Your task to perform on an android device: When is my next meeting? Image 0: 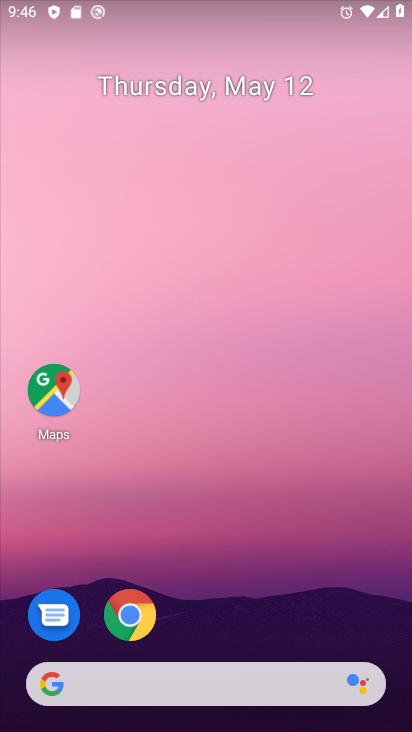
Step 0: drag from (274, 614) to (286, 164)
Your task to perform on an android device: When is my next meeting? Image 1: 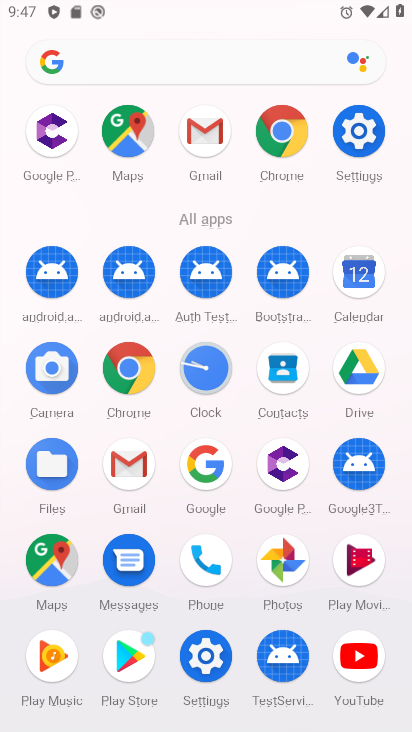
Step 1: click (364, 258)
Your task to perform on an android device: When is my next meeting? Image 2: 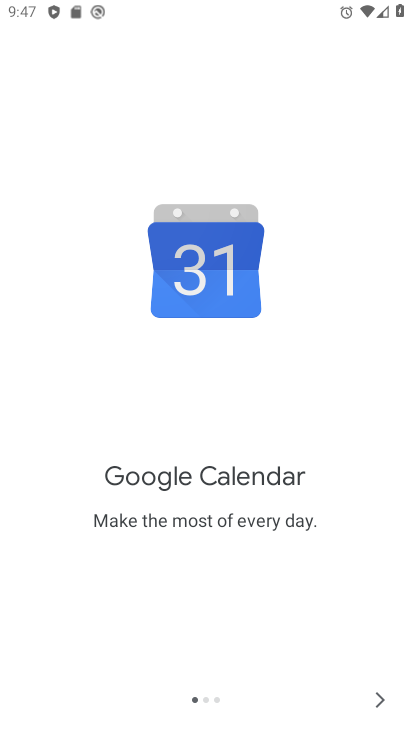
Step 2: click (379, 694)
Your task to perform on an android device: When is my next meeting? Image 3: 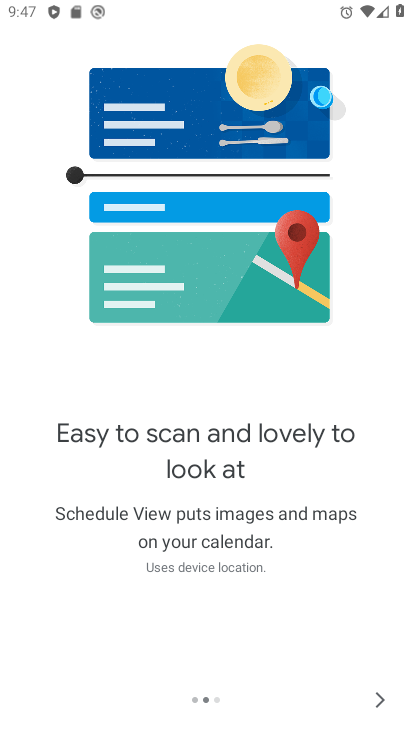
Step 3: click (379, 694)
Your task to perform on an android device: When is my next meeting? Image 4: 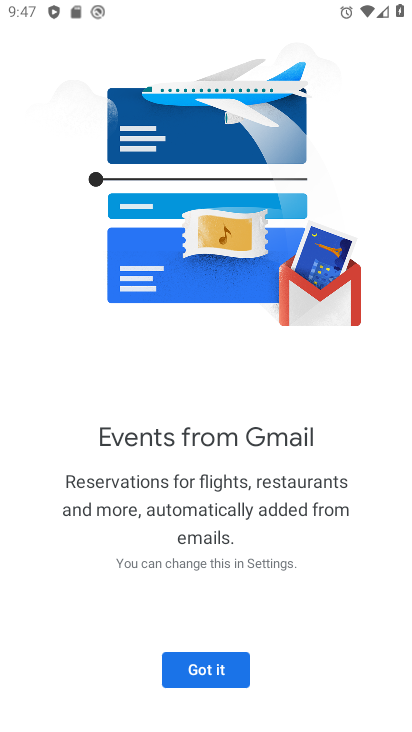
Step 4: click (206, 664)
Your task to perform on an android device: When is my next meeting? Image 5: 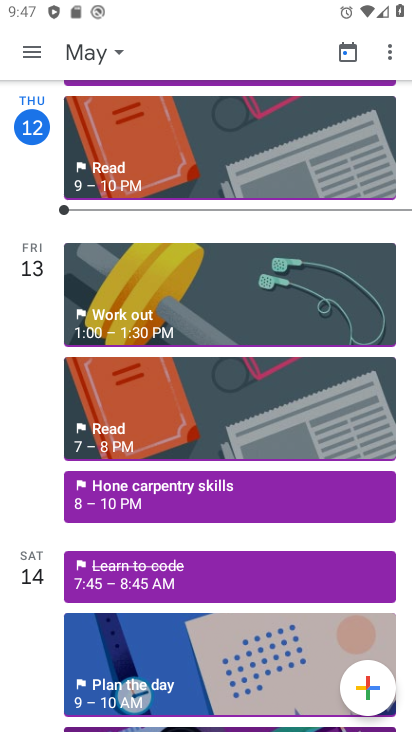
Step 5: task complete